Your task to perform on an android device: Go to sound settings Image 0: 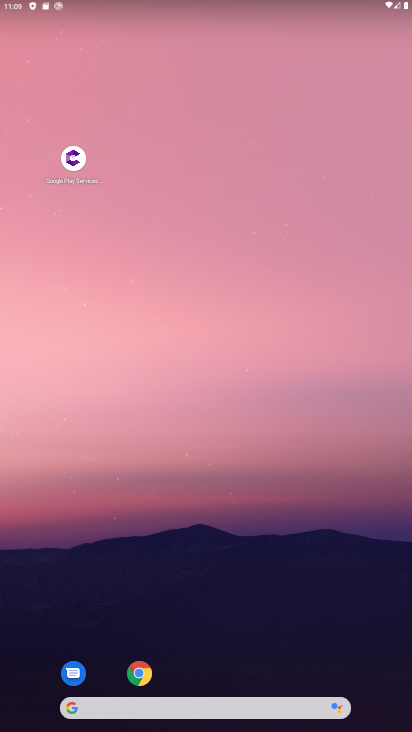
Step 0: drag from (201, 699) to (160, 32)
Your task to perform on an android device: Go to sound settings Image 1: 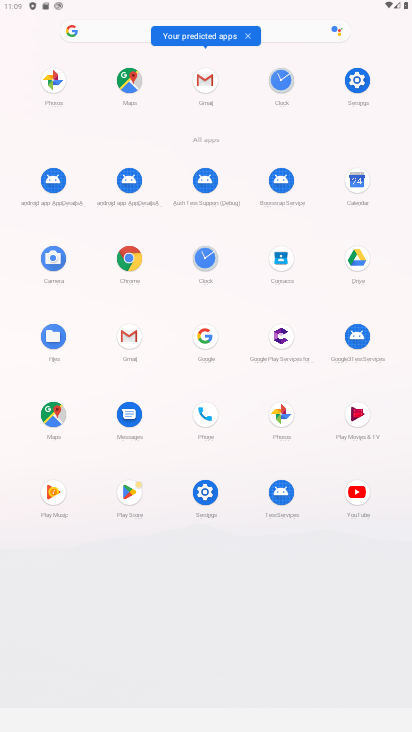
Step 1: click (366, 76)
Your task to perform on an android device: Go to sound settings Image 2: 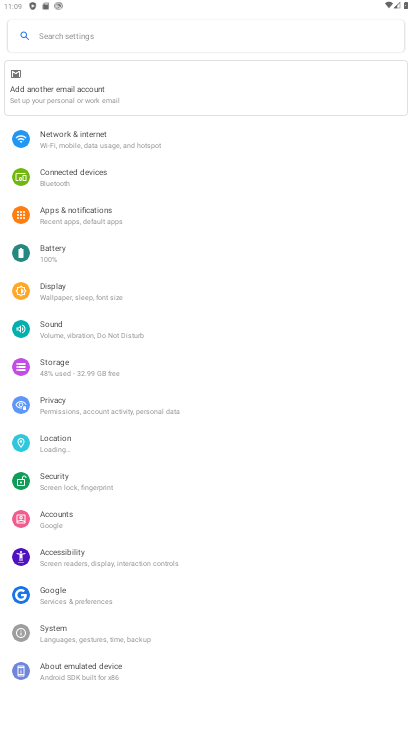
Step 2: drag from (276, 136) to (300, 35)
Your task to perform on an android device: Go to sound settings Image 3: 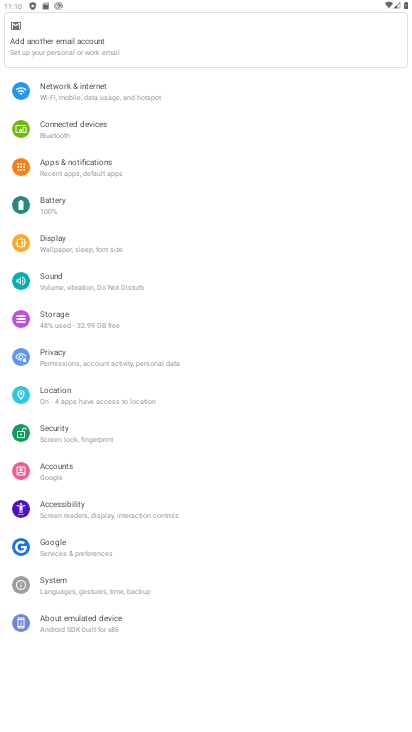
Step 3: click (62, 283)
Your task to perform on an android device: Go to sound settings Image 4: 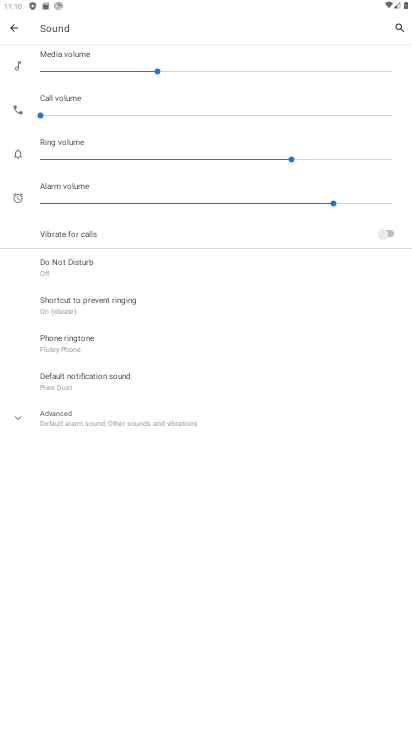
Step 4: task complete